Your task to perform on an android device: Open the Play Movies app and select the watchlist tab. Image 0: 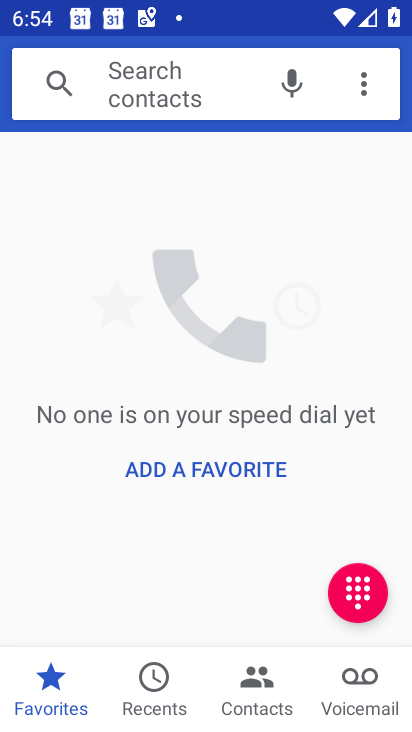
Step 0: press home button
Your task to perform on an android device: Open the Play Movies app and select the watchlist tab. Image 1: 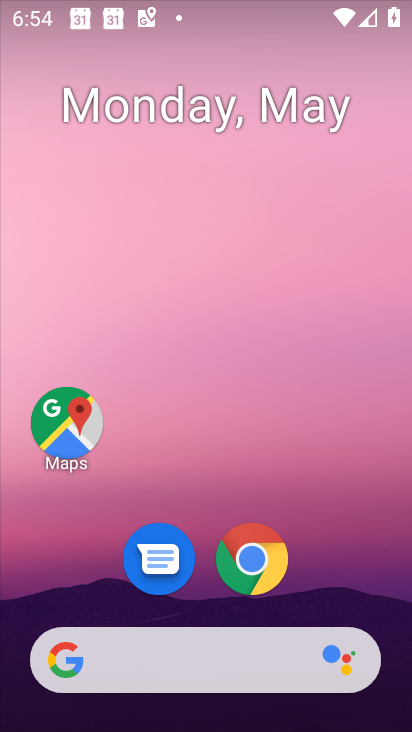
Step 1: drag from (379, 676) to (302, 0)
Your task to perform on an android device: Open the Play Movies app and select the watchlist tab. Image 2: 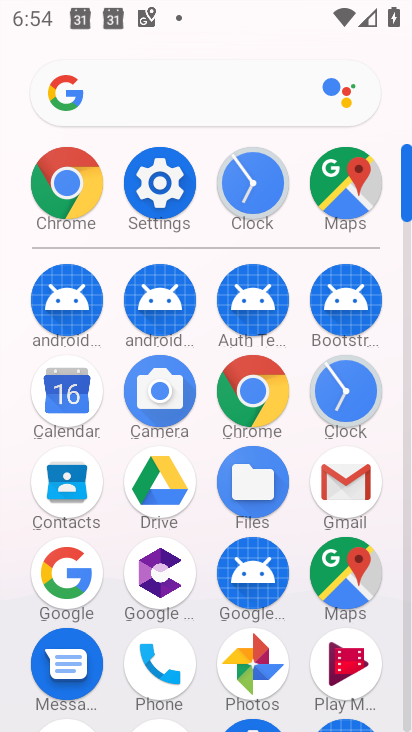
Step 2: click (348, 668)
Your task to perform on an android device: Open the Play Movies app and select the watchlist tab. Image 3: 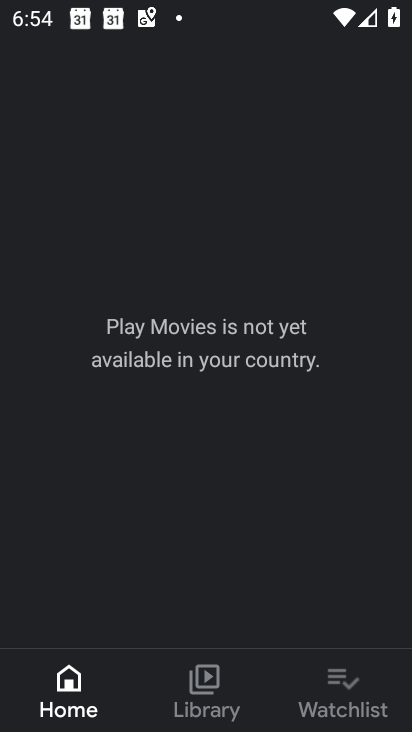
Step 3: click (335, 668)
Your task to perform on an android device: Open the Play Movies app and select the watchlist tab. Image 4: 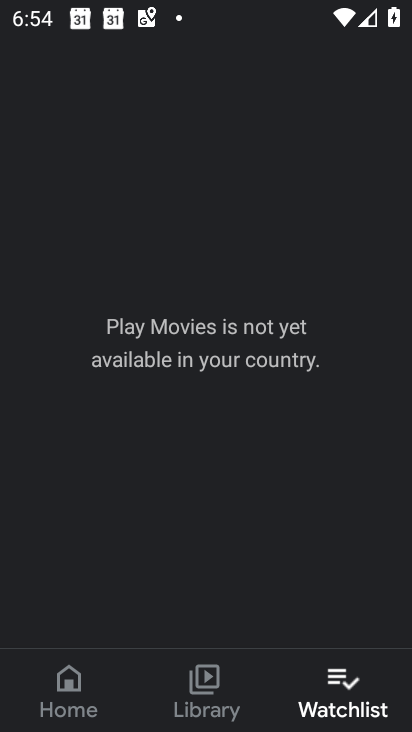
Step 4: task complete